Your task to perform on an android device: toggle show notifications on the lock screen Image 0: 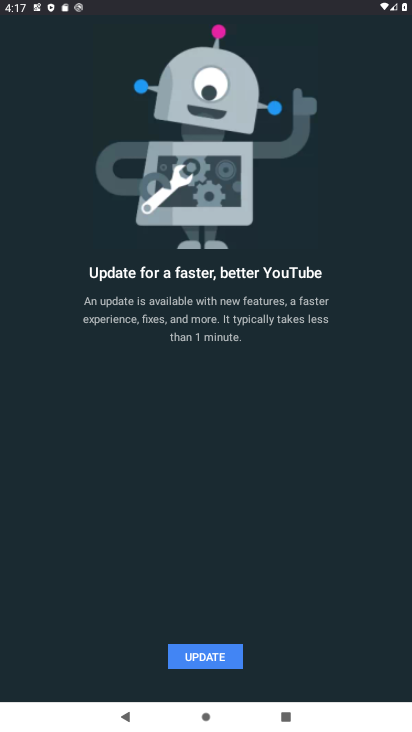
Step 0: press back button
Your task to perform on an android device: toggle show notifications on the lock screen Image 1: 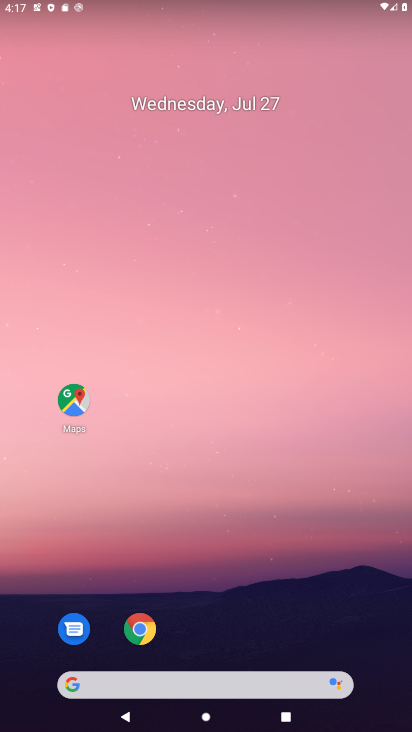
Step 1: drag from (208, 659) to (137, 34)
Your task to perform on an android device: toggle show notifications on the lock screen Image 2: 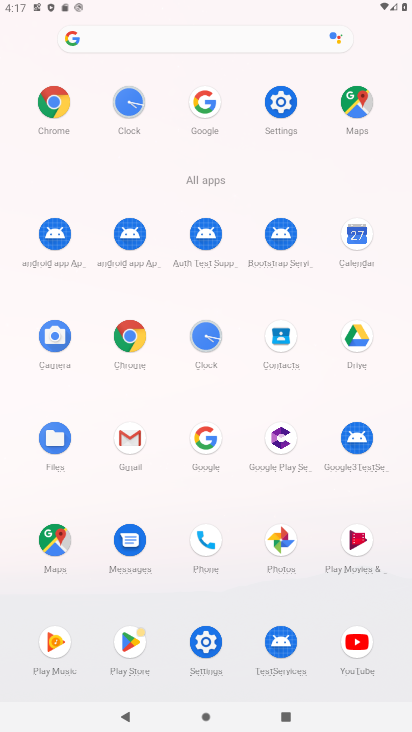
Step 2: click (202, 649)
Your task to perform on an android device: toggle show notifications on the lock screen Image 3: 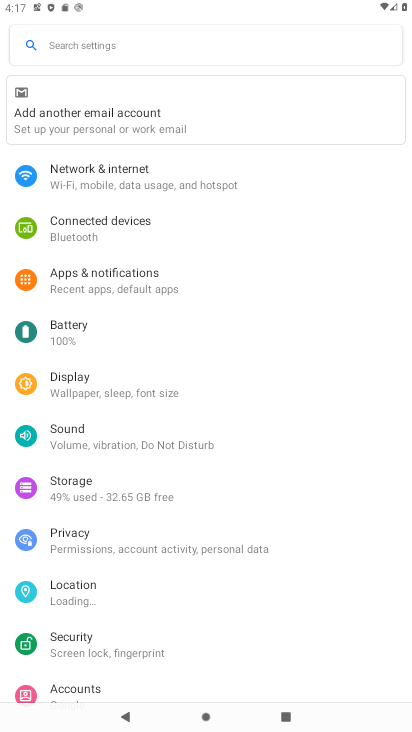
Step 3: click (137, 277)
Your task to perform on an android device: toggle show notifications on the lock screen Image 4: 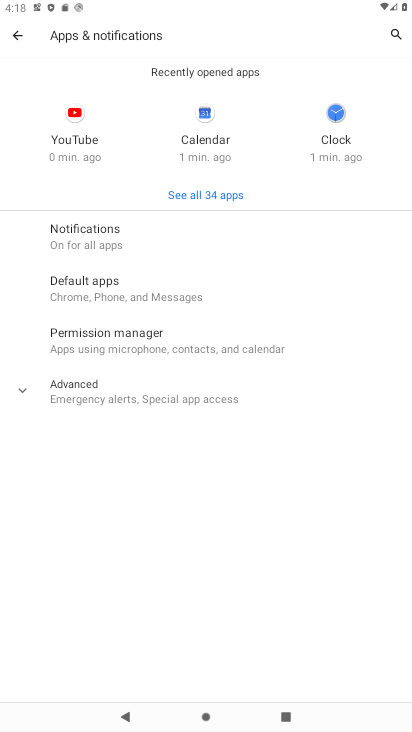
Step 4: click (74, 227)
Your task to perform on an android device: toggle show notifications on the lock screen Image 5: 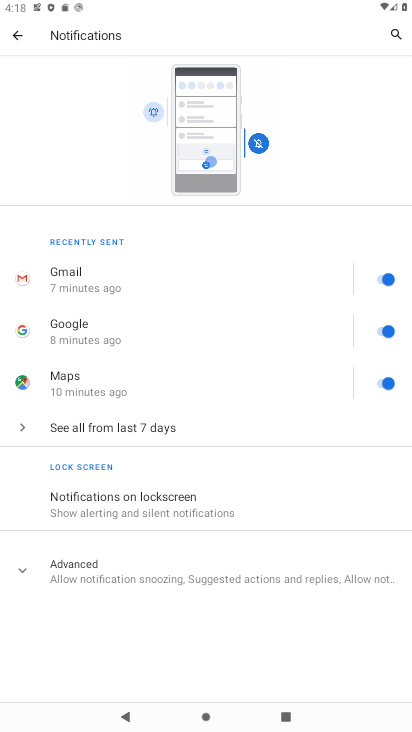
Step 5: click (126, 511)
Your task to perform on an android device: toggle show notifications on the lock screen Image 6: 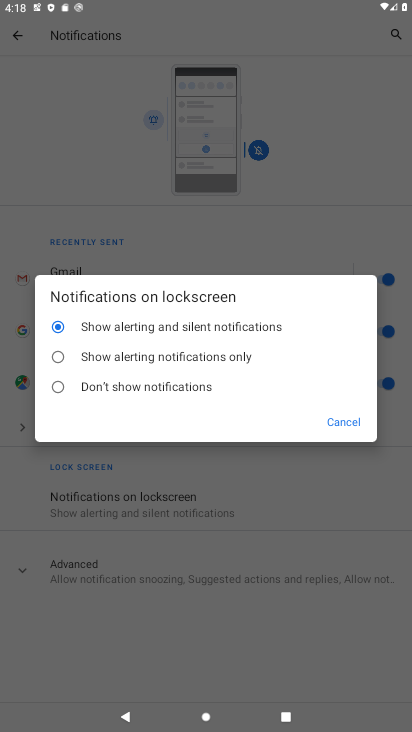
Step 6: click (108, 366)
Your task to perform on an android device: toggle show notifications on the lock screen Image 7: 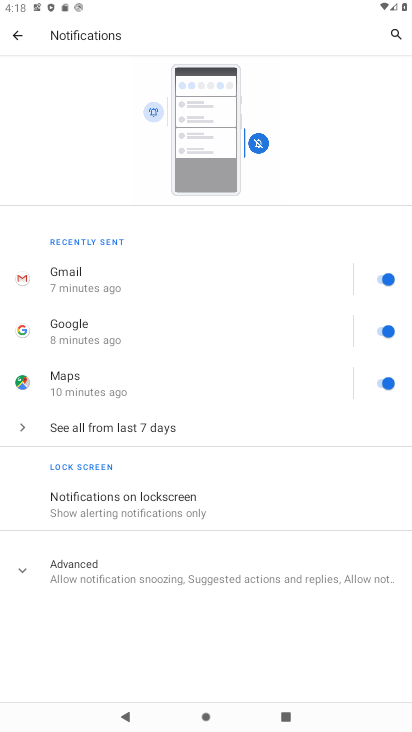
Step 7: task complete